Your task to perform on an android device: Turn on the flashlight Image 0: 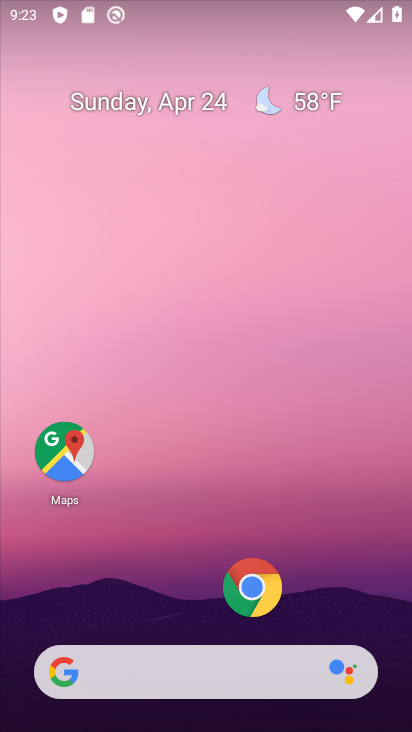
Step 0: drag from (221, 18) to (175, 547)
Your task to perform on an android device: Turn on the flashlight Image 1: 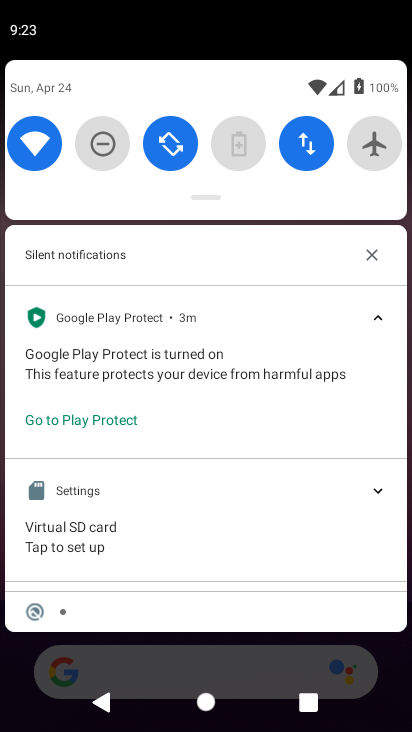
Step 1: task complete